Your task to perform on an android device: Open Youtube and go to "Your channel" Image 0: 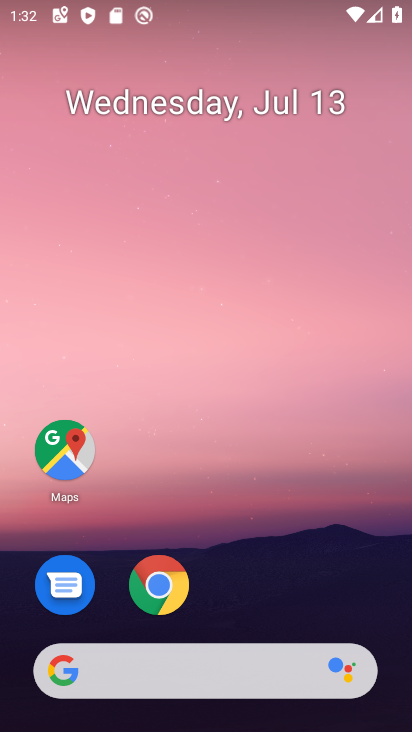
Step 0: drag from (232, 681) to (280, 354)
Your task to perform on an android device: Open Youtube and go to "Your channel" Image 1: 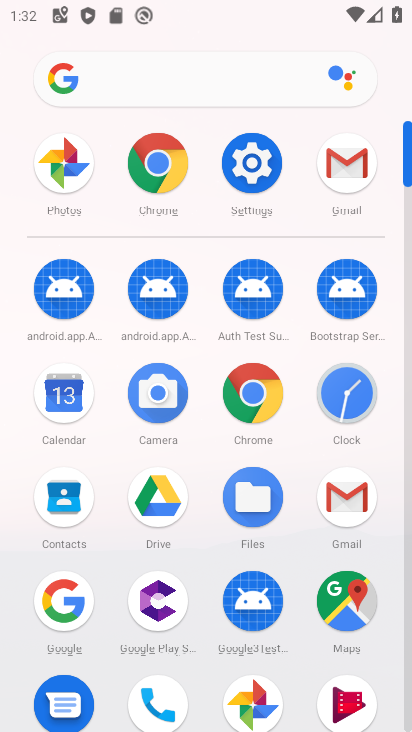
Step 1: drag from (287, 662) to (353, 274)
Your task to perform on an android device: Open Youtube and go to "Your channel" Image 2: 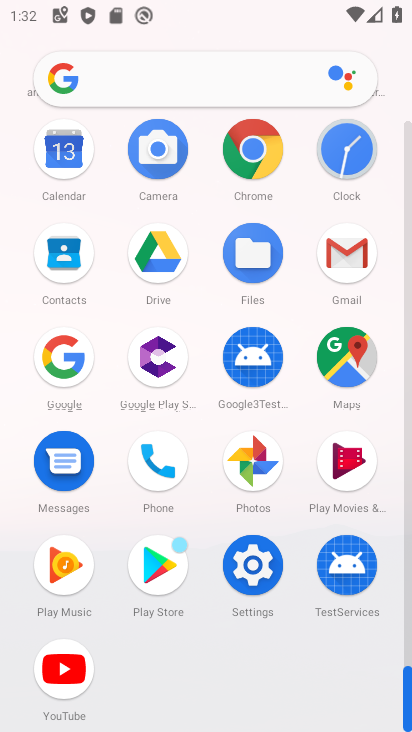
Step 2: click (62, 681)
Your task to perform on an android device: Open Youtube and go to "Your channel" Image 3: 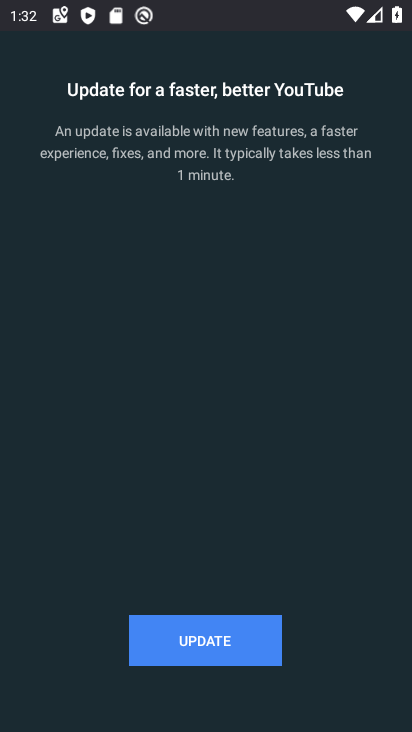
Step 3: click (194, 641)
Your task to perform on an android device: Open Youtube and go to "Your channel" Image 4: 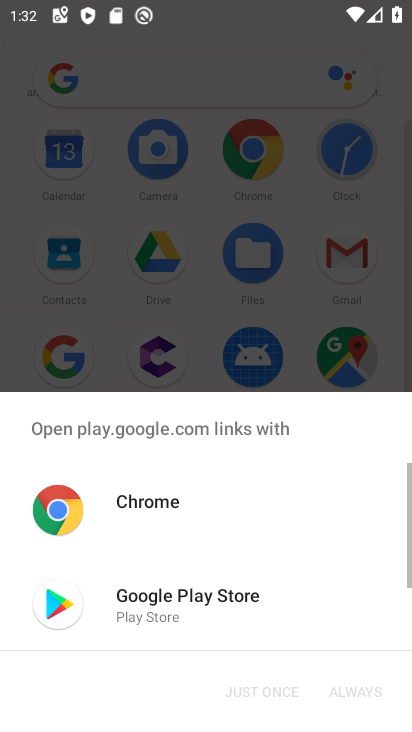
Step 4: click (174, 601)
Your task to perform on an android device: Open Youtube and go to "Your channel" Image 5: 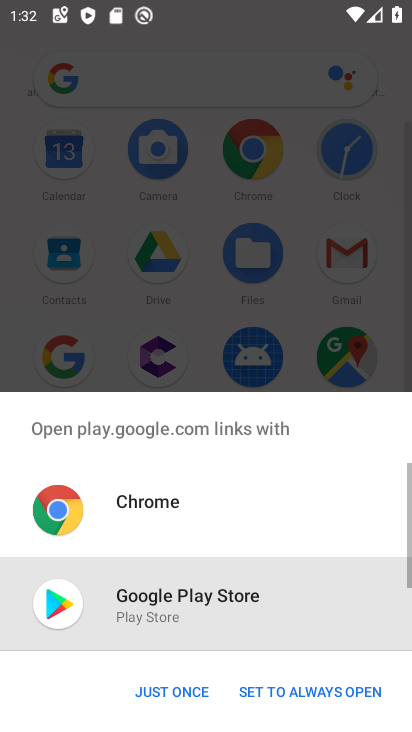
Step 5: click (177, 691)
Your task to perform on an android device: Open Youtube and go to "Your channel" Image 6: 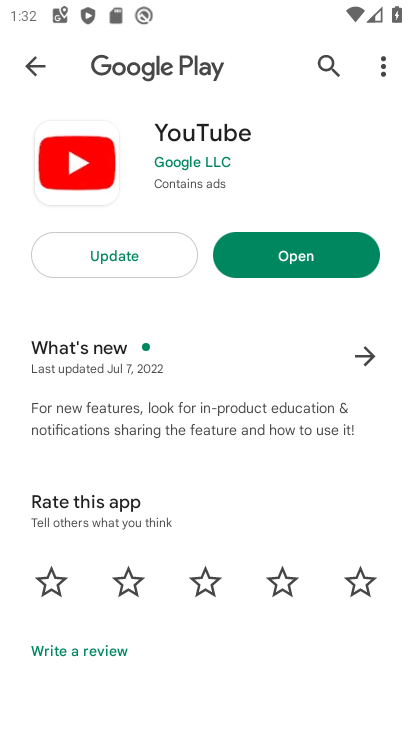
Step 6: click (140, 254)
Your task to perform on an android device: Open Youtube and go to "Your channel" Image 7: 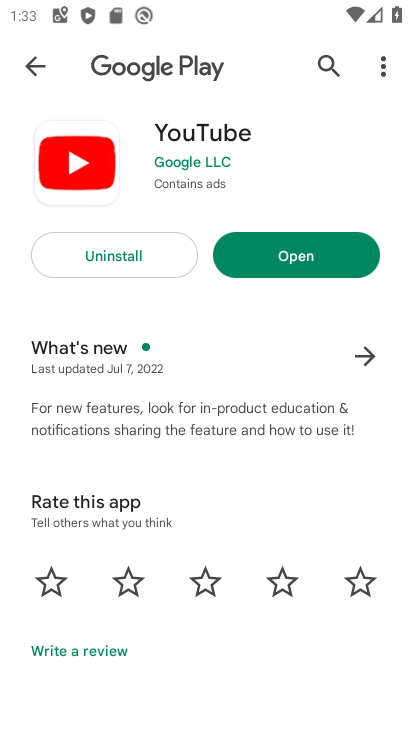
Step 7: click (270, 249)
Your task to perform on an android device: Open Youtube and go to "Your channel" Image 8: 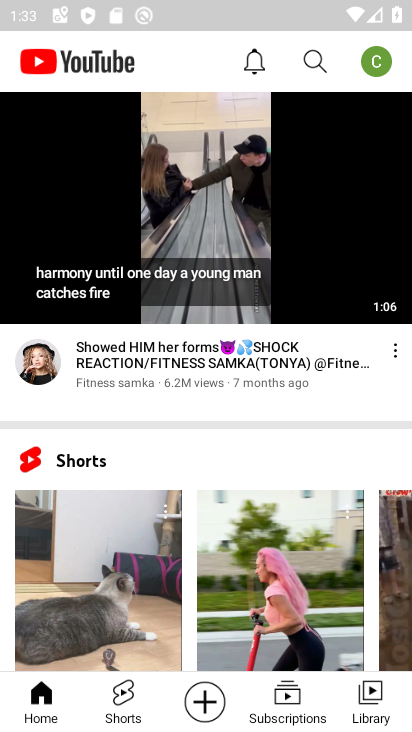
Step 8: click (381, 59)
Your task to perform on an android device: Open Youtube and go to "Your channel" Image 9: 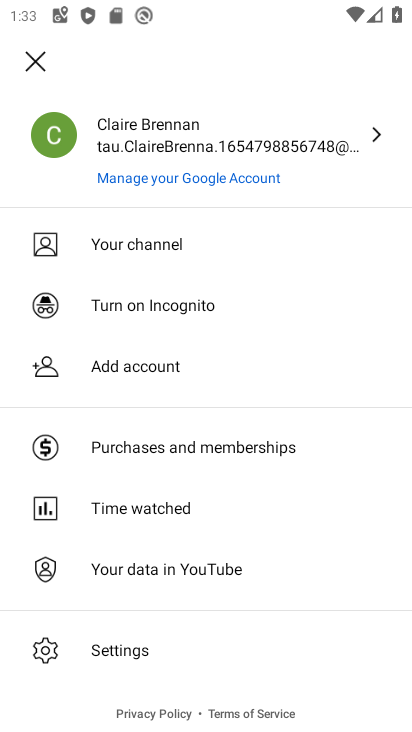
Step 9: click (155, 246)
Your task to perform on an android device: Open Youtube and go to "Your channel" Image 10: 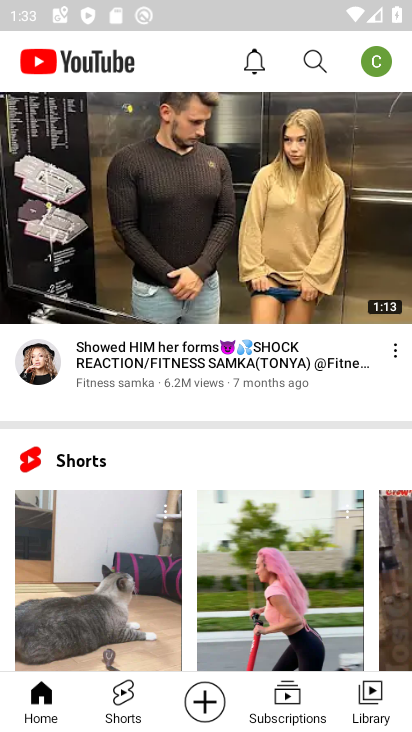
Step 10: click (375, 54)
Your task to perform on an android device: Open Youtube and go to "Your channel" Image 11: 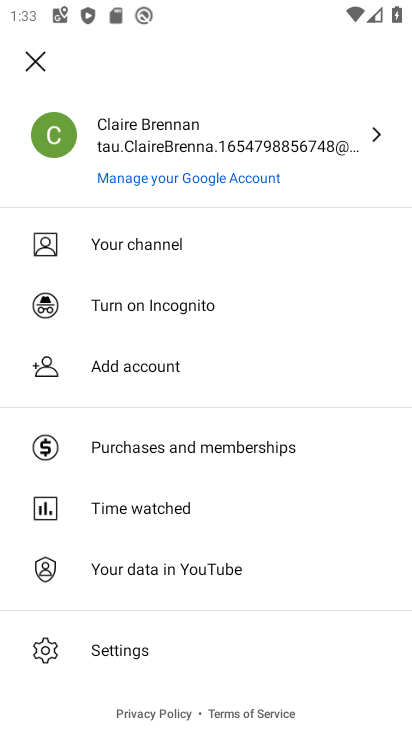
Step 11: click (131, 239)
Your task to perform on an android device: Open Youtube and go to "Your channel" Image 12: 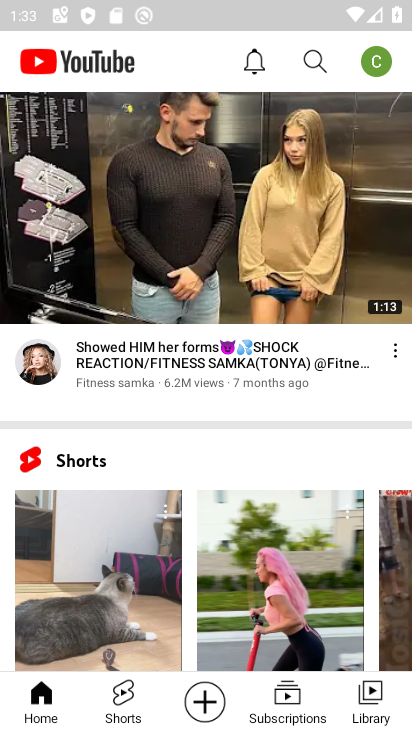
Step 12: task complete